Your task to perform on an android device: change notifications settings Image 0: 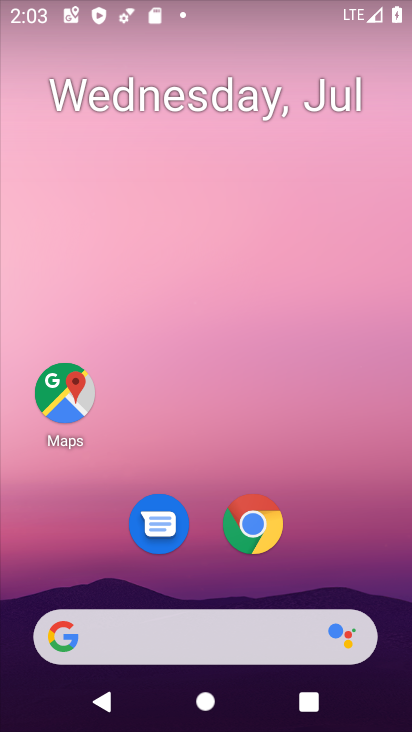
Step 0: drag from (320, 529) to (289, 22)
Your task to perform on an android device: change notifications settings Image 1: 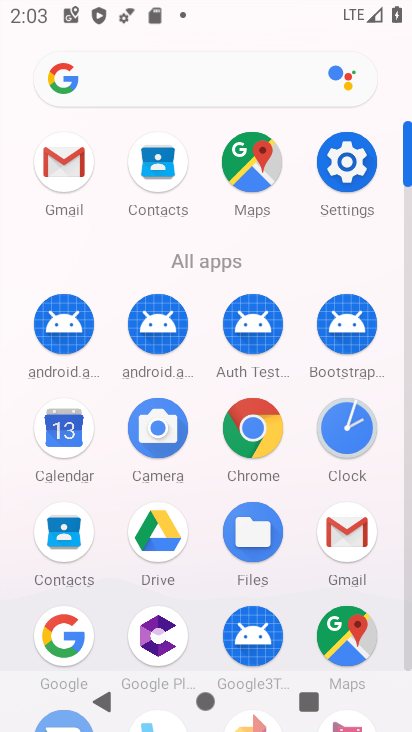
Step 1: click (342, 156)
Your task to perform on an android device: change notifications settings Image 2: 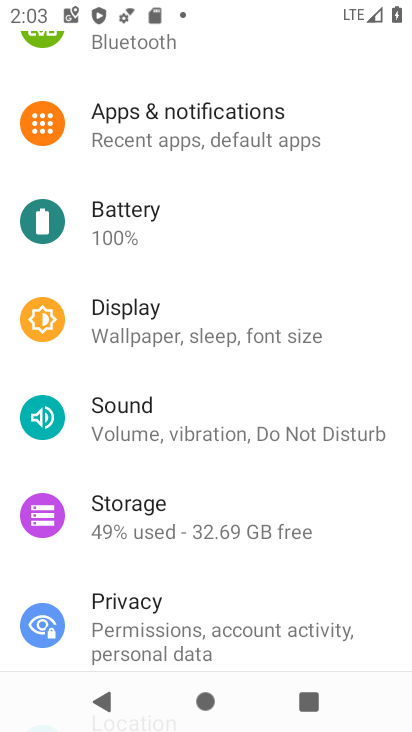
Step 2: click (239, 122)
Your task to perform on an android device: change notifications settings Image 3: 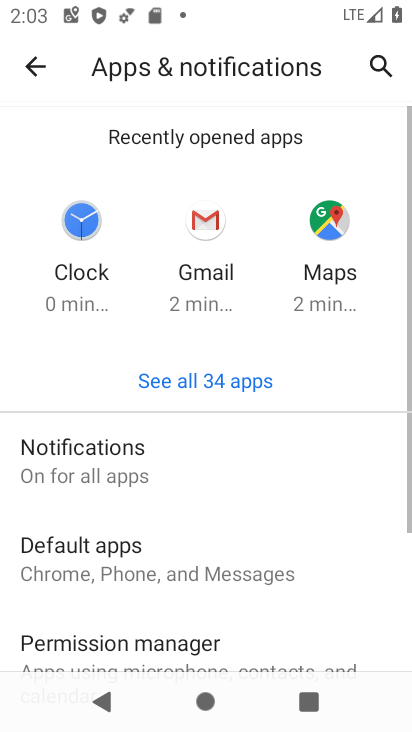
Step 3: click (126, 479)
Your task to perform on an android device: change notifications settings Image 4: 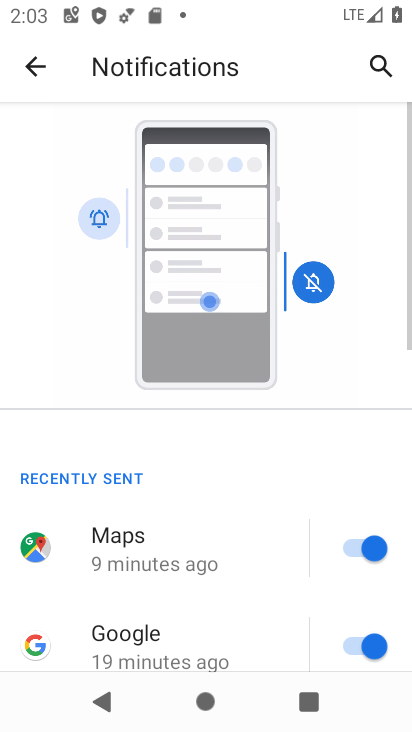
Step 4: drag from (220, 589) to (262, 181)
Your task to perform on an android device: change notifications settings Image 5: 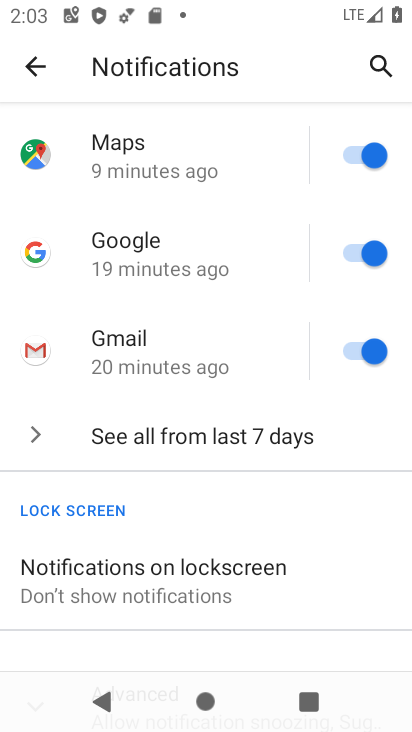
Step 5: click (248, 438)
Your task to perform on an android device: change notifications settings Image 6: 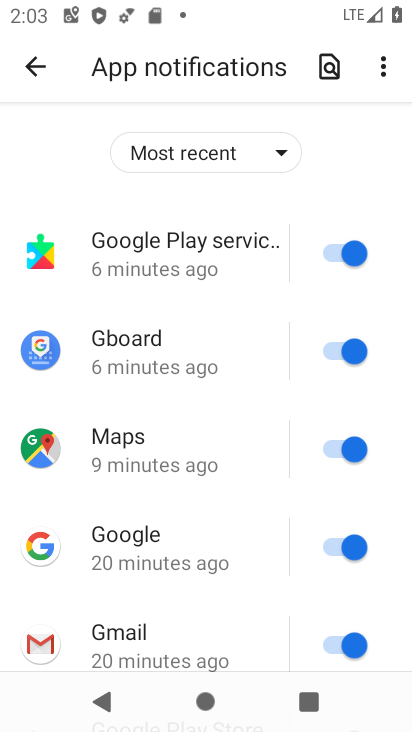
Step 6: click (358, 252)
Your task to perform on an android device: change notifications settings Image 7: 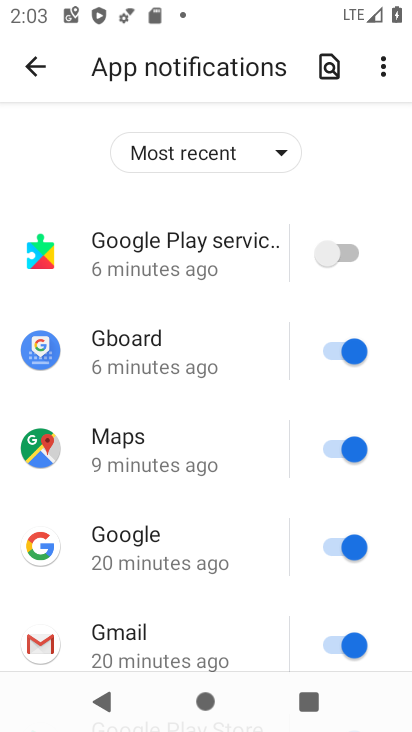
Step 7: click (353, 342)
Your task to perform on an android device: change notifications settings Image 8: 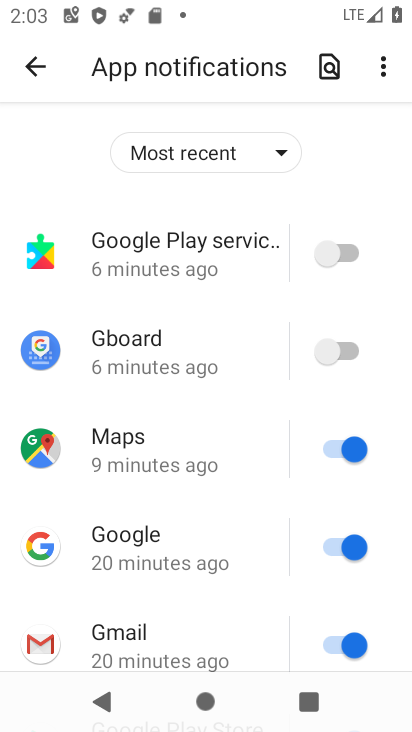
Step 8: click (352, 455)
Your task to perform on an android device: change notifications settings Image 9: 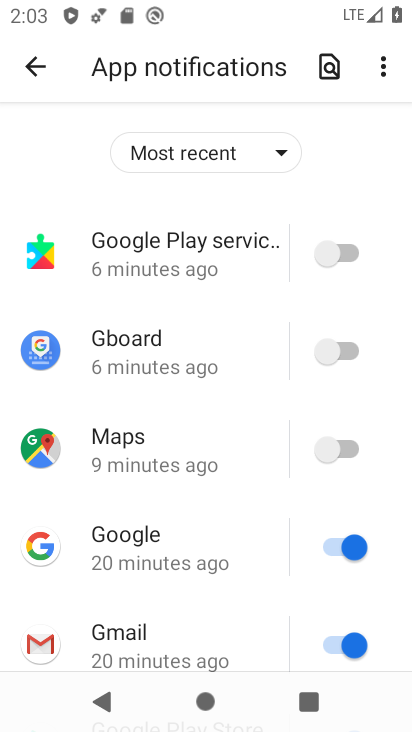
Step 9: click (335, 551)
Your task to perform on an android device: change notifications settings Image 10: 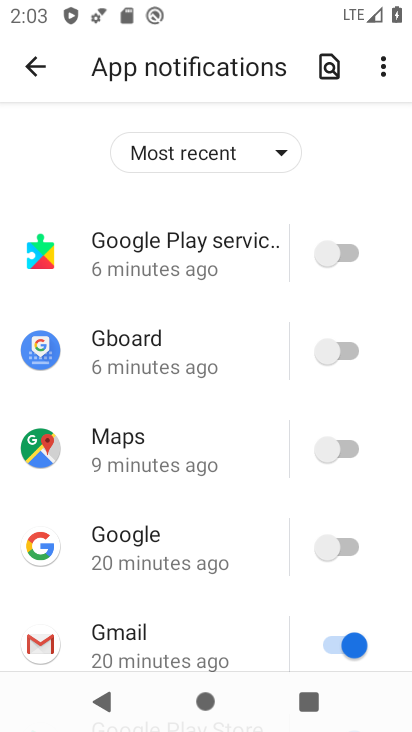
Step 10: click (346, 639)
Your task to perform on an android device: change notifications settings Image 11: 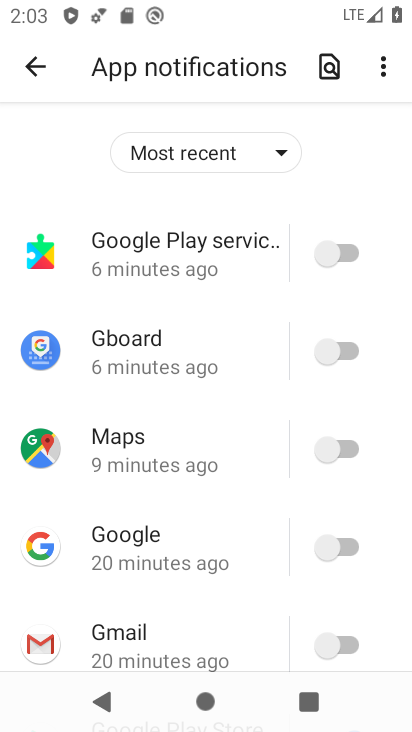
Step 11: drag from (246, 566) to (241, 223)
Your task to perform on an android device: change notifications settings Image 12: 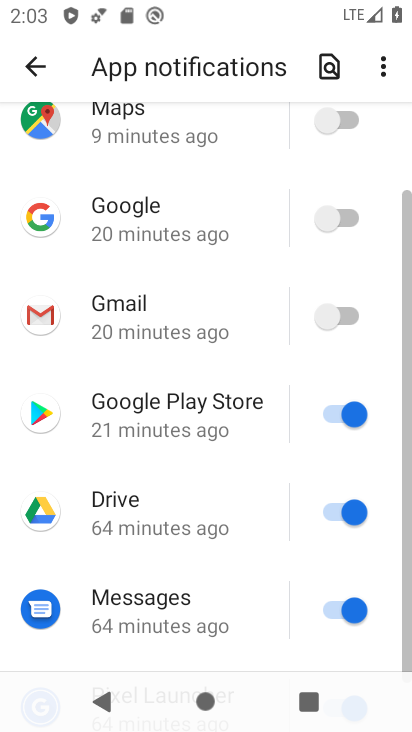
Step 12: drag from (234, 439) to (248, 289)
Your task to perform on an android device: change notifications settings Image 13: 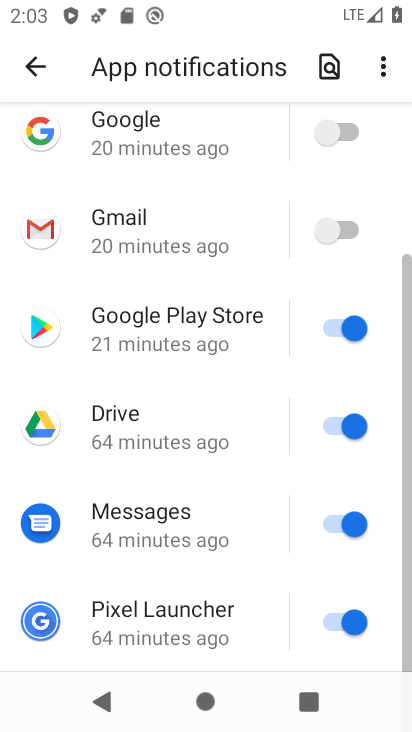
Step 13: drag from (252, 392) to (261, 252)
Your task to perform on an android device: change notifications settings Image 14: 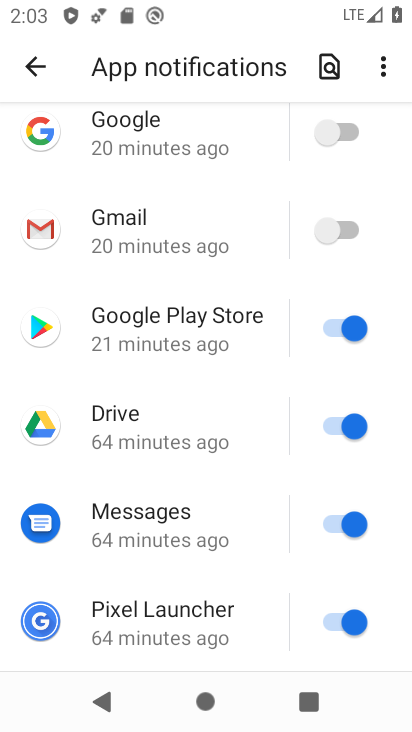
Step 14: click (346, 325)
Your task to perform on an android device: change notifications settings Image 15: 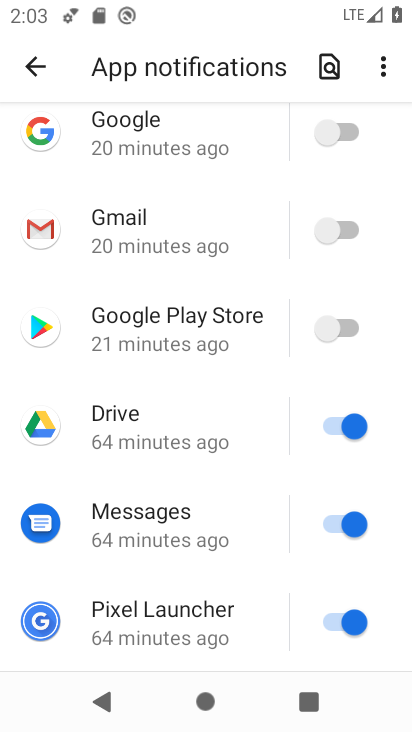
Step 15: click (349, 431)
Your task to perform on an android device: change notifications settings Image 16: 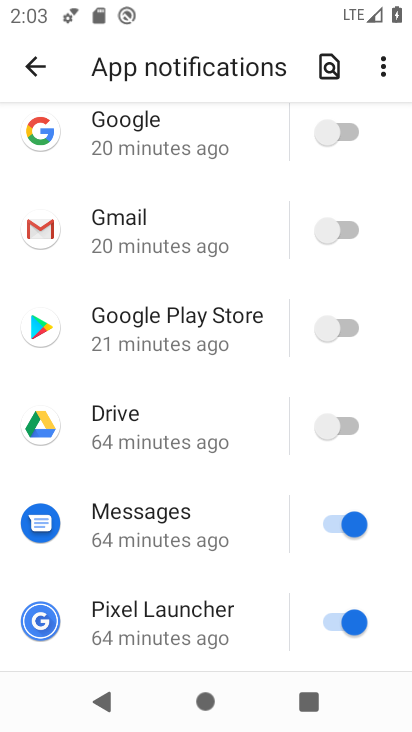
Step 16: click (351, 523)
Your task to perform on an android device: change notifications settings Image 17: 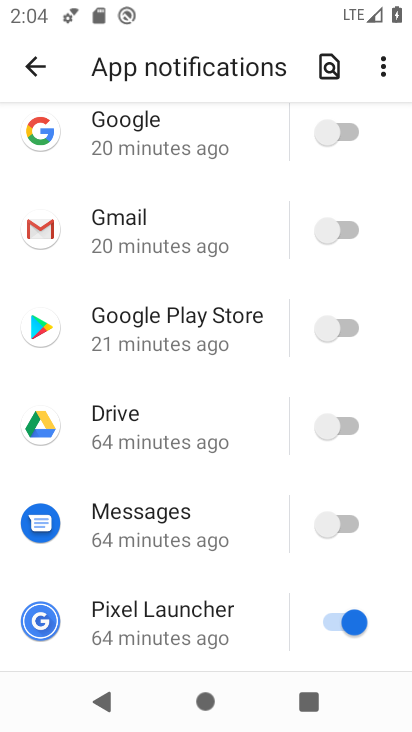
Step 17: click (343, 618)
Your task to perform on an android device: change notifications settings Image 18: 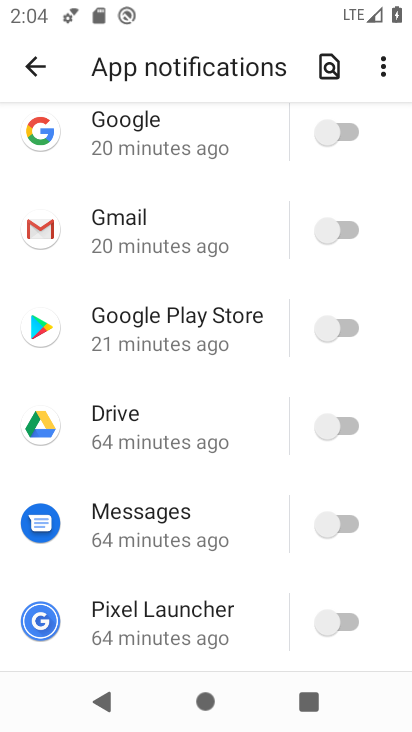
Step 18: task complete